Your task to perform on an android device: turn off improve location accuracy Image 0: 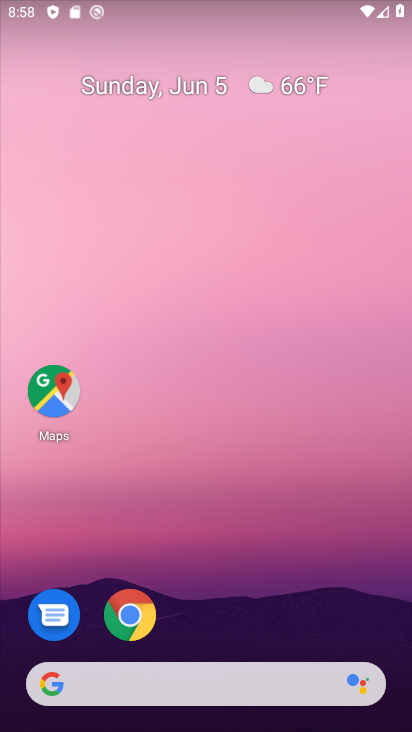
Step 0: drag from (182, 649) to (251, 160)
Your task to perform on an android device: turn off improve location accuracy Image 1: 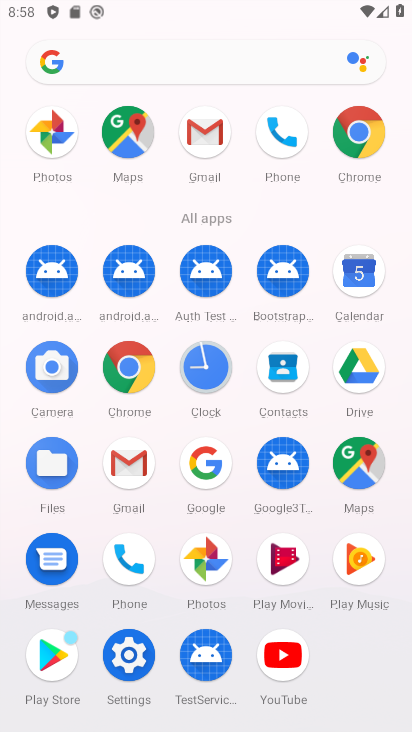
Step 1: click (124, 675)
Your task to perform on an android device: turn off improve location accuracy Image 2: 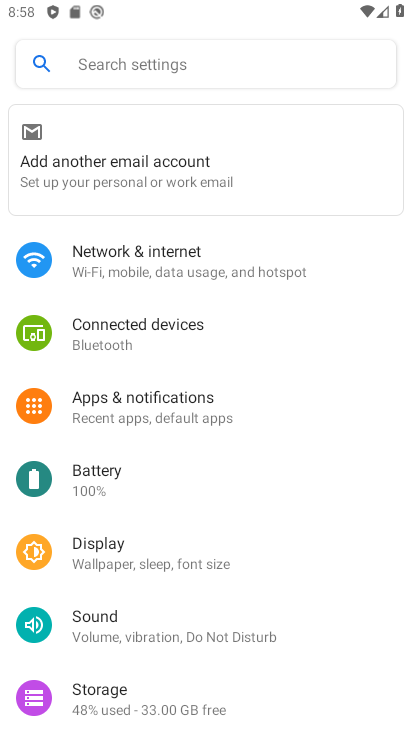
Step 2: drag from (179, 664) to (346, 19)
Your task to perform on an android device: turn off improve location accuracy Image 3: 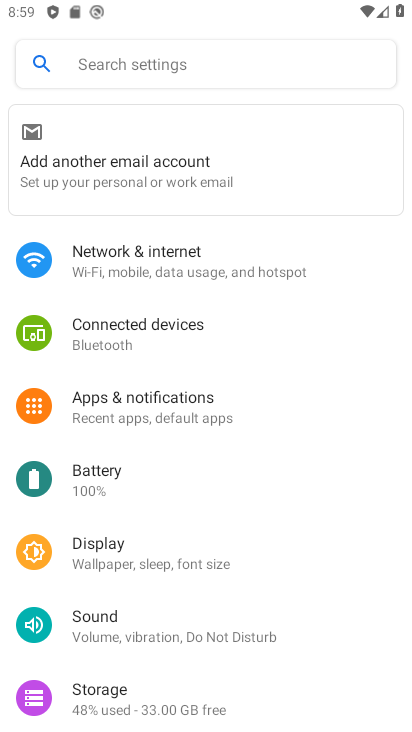
Step 3: drag from (162, 687) to (202, 319)
Your task to perform on an android device: turn off improve location accuracy Image 4: 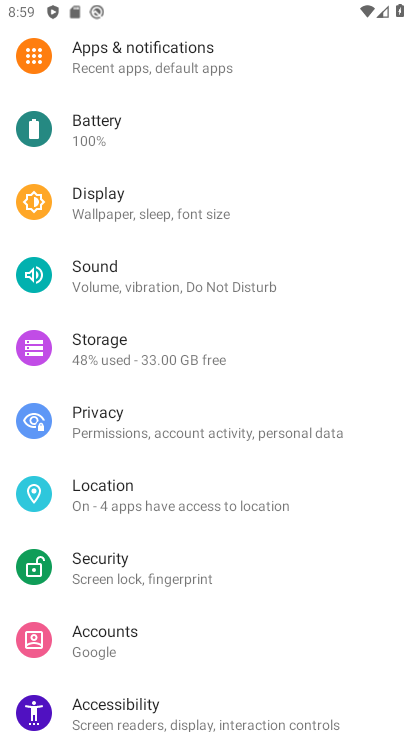
Step 4: click (117, 493)
Your task to perform on an android device: turn off improve location accuracy Image 5: 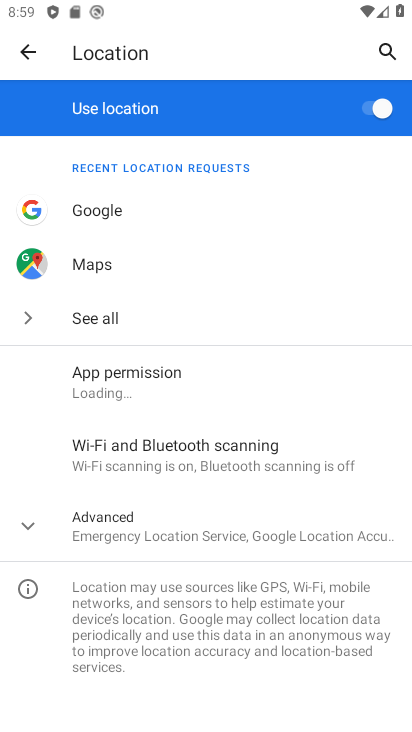
Step 5: click (183, 543)
Your task to perform on an android device: turn off improve location accuracy Image 6: 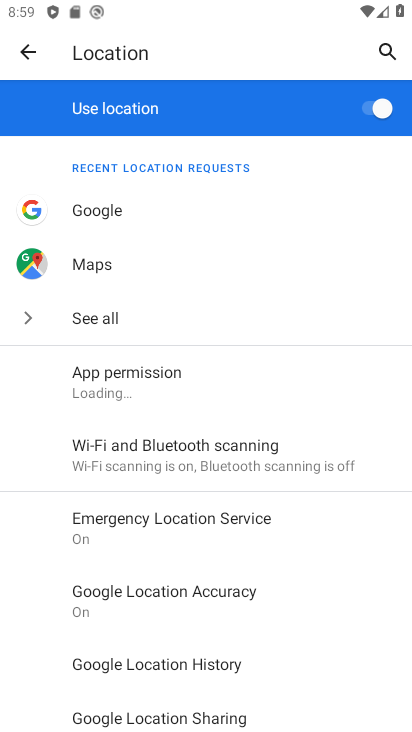
Step 6: click (235, 611)
Your task to perform on an android device: turn off improve location accuracy Image 7: 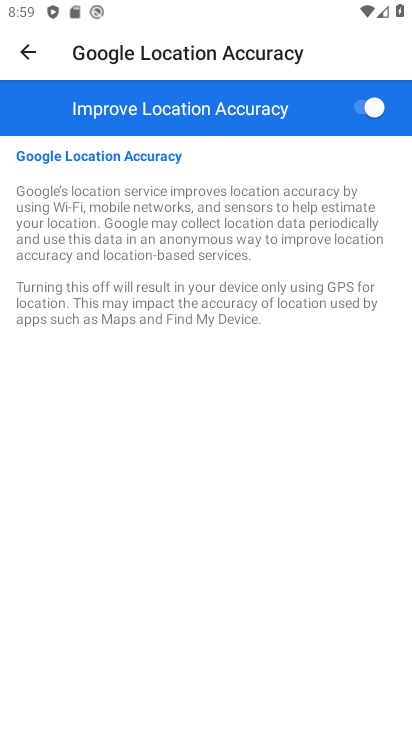
Step 7: click (363, 102)
Your task to perform on an android device: turn off improve location accuracy Image 8: 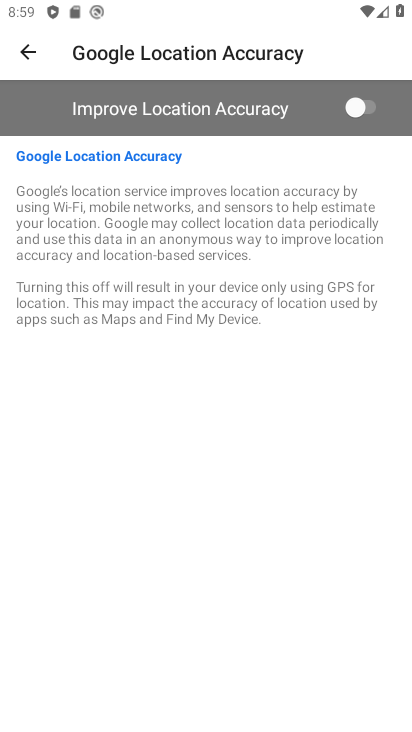
Step 8: task complete